Your task to perform on an android device: turn vacation reply on in the gmail app Image 0: 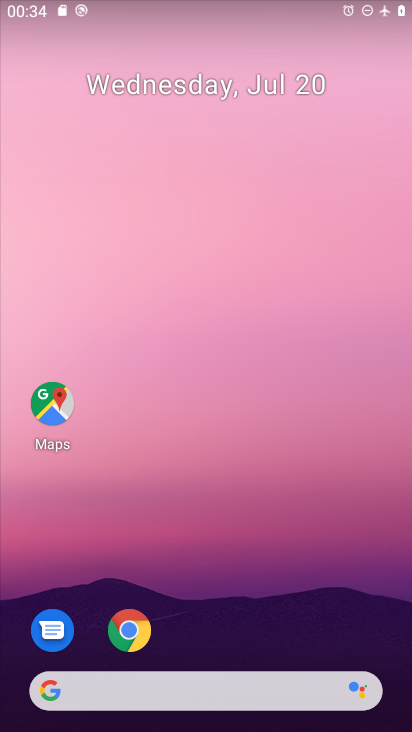
Step 0: drag from (208, 619) to (209, 202)
Your task to perform on an android device: turn vacation reply on in the gmail app Image 1: 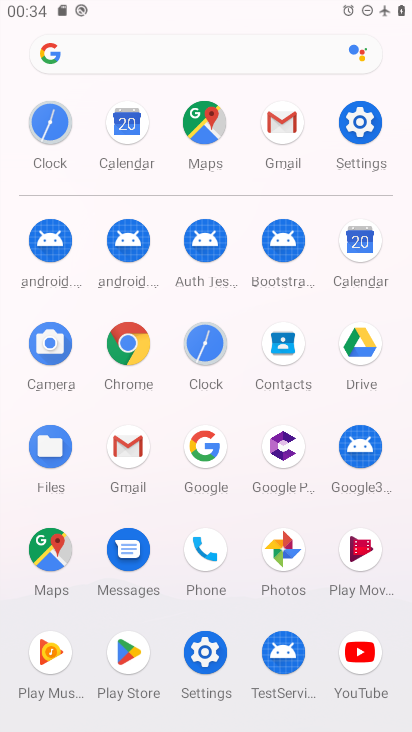
Step 1: click (253, 134)
Your task to perform on an android device: turn vacation reply on in the gmail app Image 2: 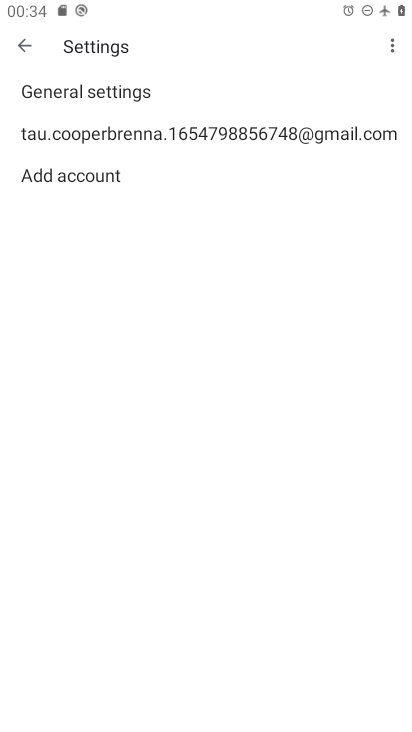
Step 2: click (126, 118)
Your task to perform on an android device: turn vacation reply on in the gmail app Image 3: 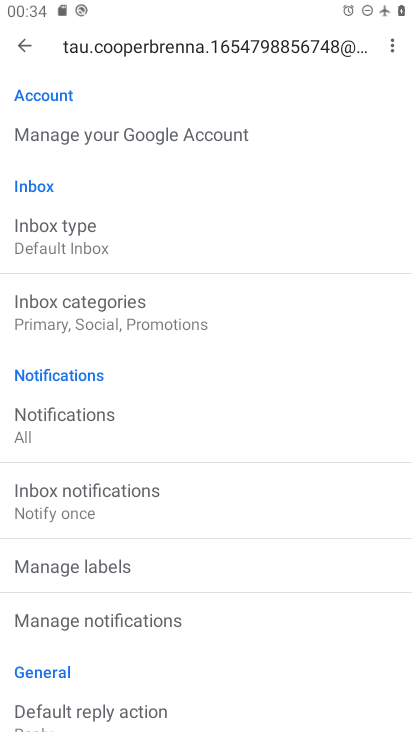
Step 3: drag from (145, 656) to (144, 366)
Your task to perform on an android device: turn vacation reply on in the gmail app Image 4: 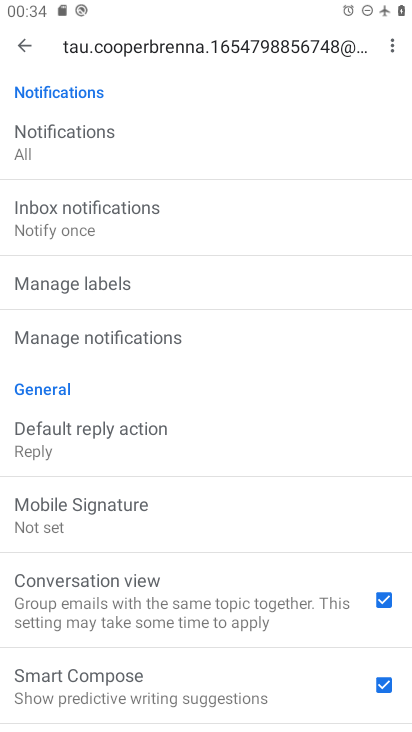
Step 4: drag from (174, 575) to (209, 193)
Your task to perform on an android device: turn vacation reply on in the gmail app Image 5: 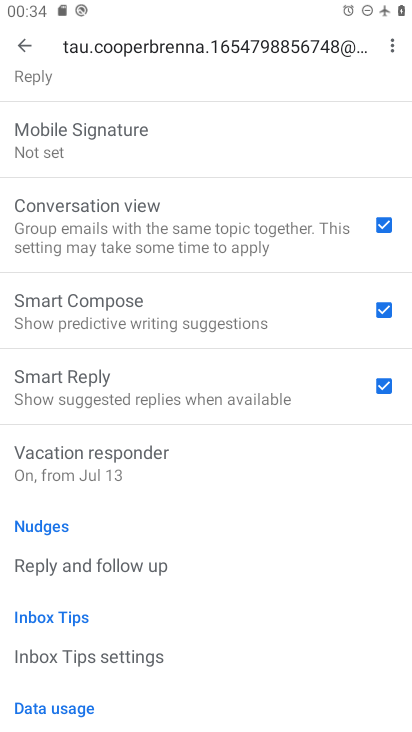
Step 5: click (128, 468)
Your task to perform on an android device: turn vacation reply on in the gmail app Image 6: 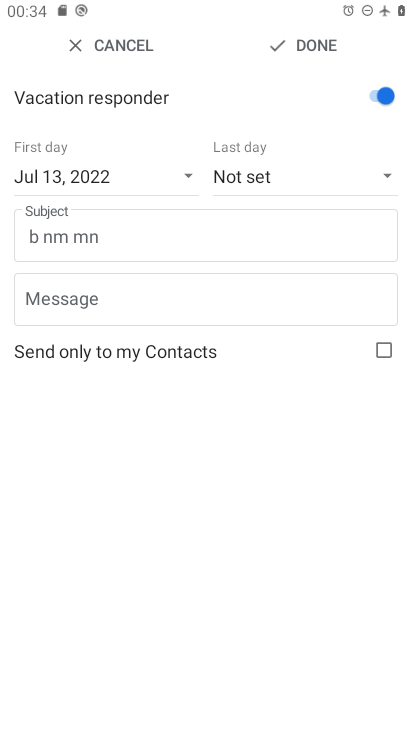
Step 6: task complete